Your task to perform on an android device: Check the weather Image 0: 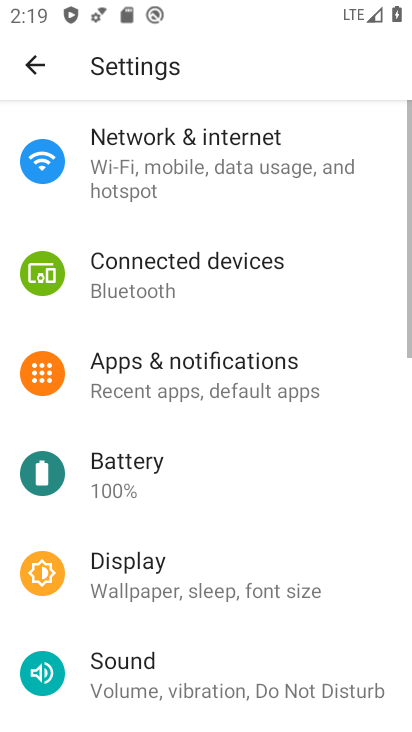
Step 0: press back button
Your task to perform on an android device: Check the weather Image 1: 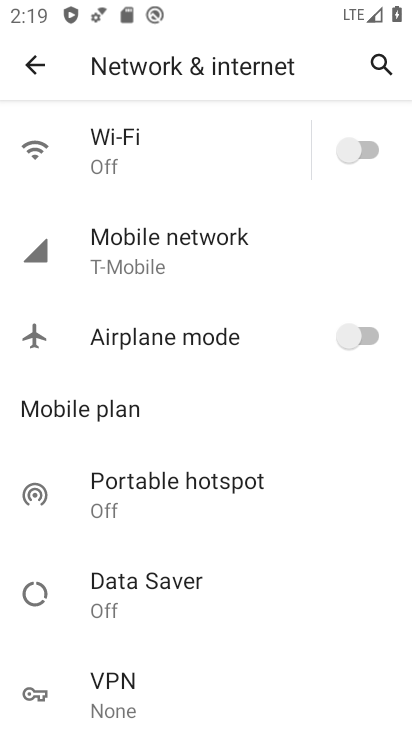
Step 1: press home button
Your task to perform on an android device: Check the weather Image 2: 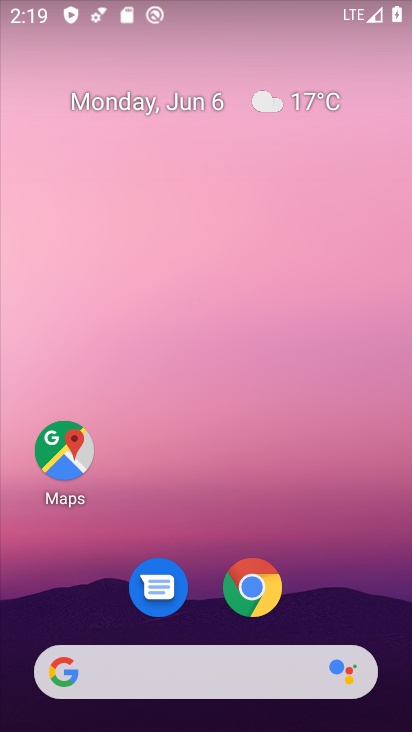
Step 2: drag from (292, 528) to (220, 62)
Your task to perform on an android device: Check the weather Image 3: 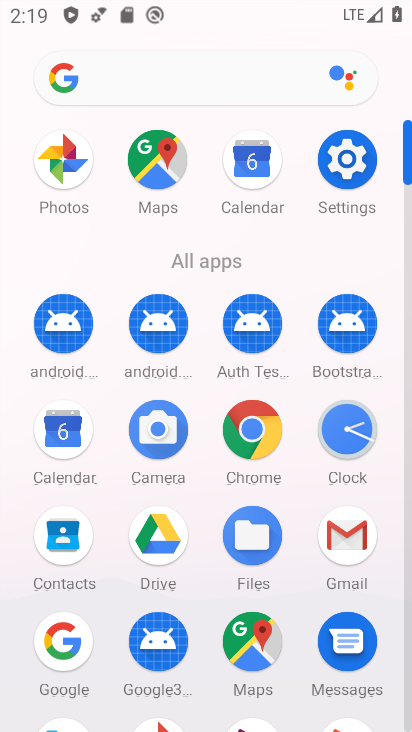
Step 3: click (251, 425)
Your task to perform on an android device: Check the weather Image 4: 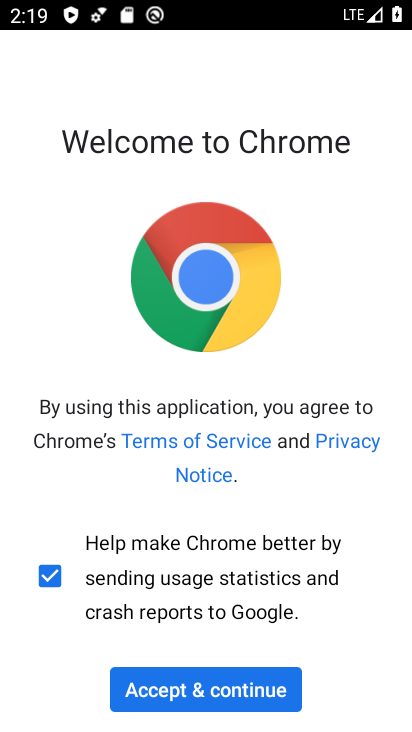
Step 4: click (204, 674)
Your task to perform on an android device: Check the weather Image 5: 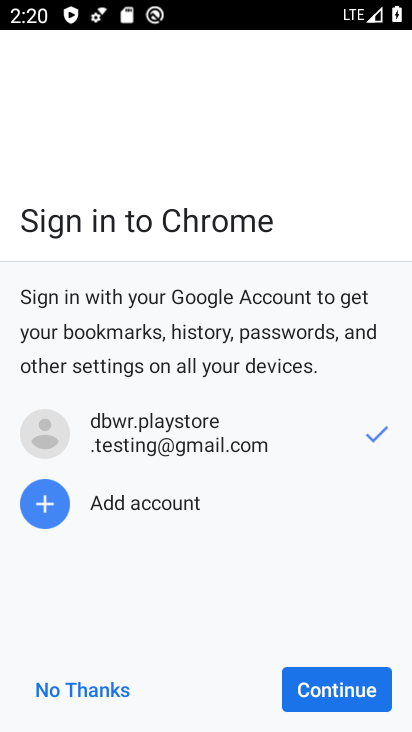
Step 5: click (328, 680)
Your task to perform on an android device: Check the weather Image 6: 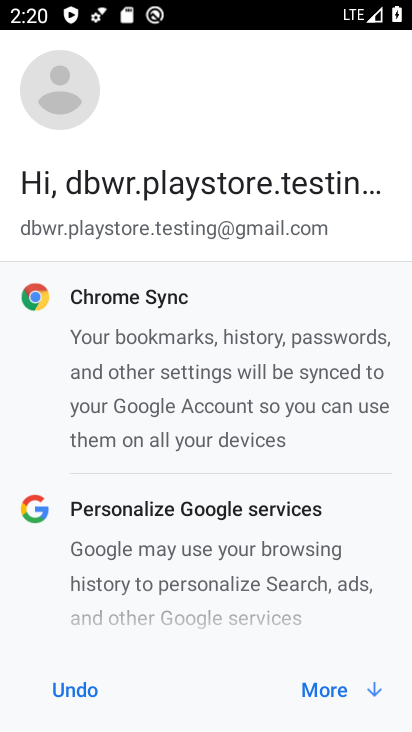
Step 6: click (328, 680)
Your task to perform on an android device: Check the weather Image 7: 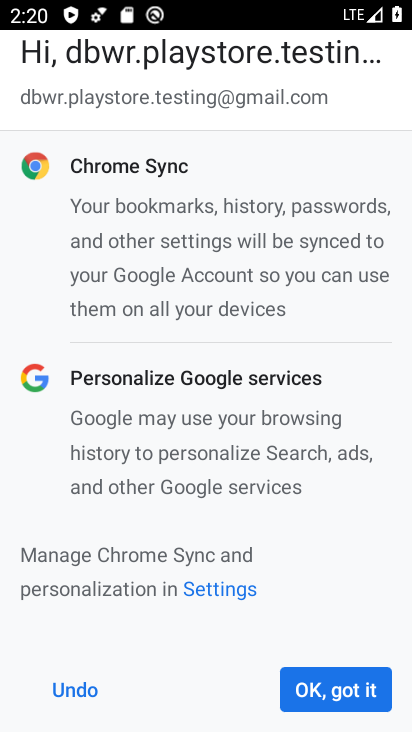
Step 7: click (328, 680)
Your task to perform on an android device: Check the weather Image 8: 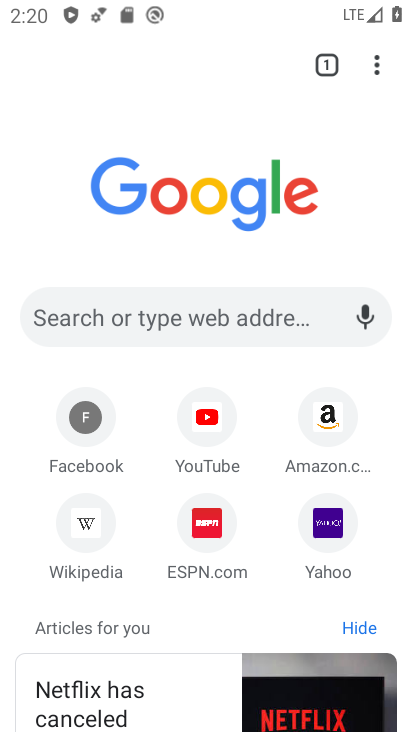
Step 8: click (153, 319)
Your task to perform on an android device: Check the weather Image 9: 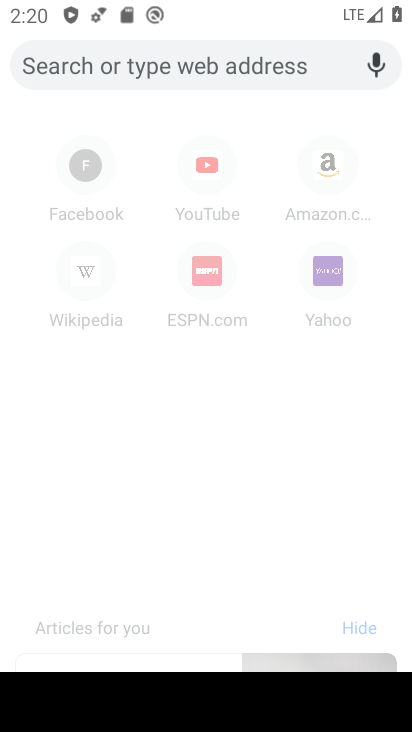
Step 9: type "Check the weather"
Your task to perform on an android device: Check the weather Image 10: 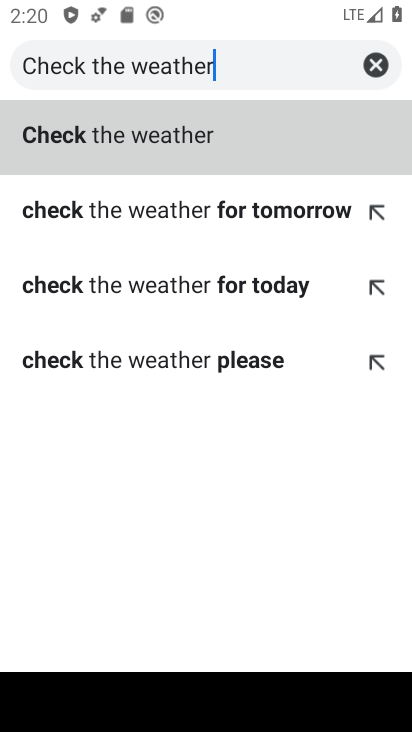
Step 10: type ""
Your task to perform on an android device: Check the weather Image 11: 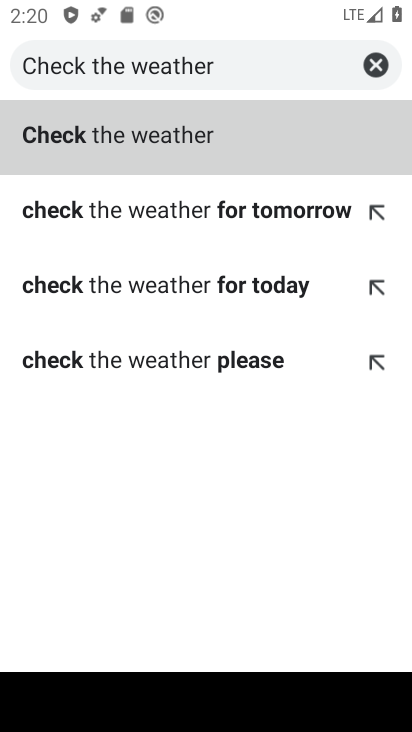
Step 11: click (195, 138)
Your task to perform on an android device: Check the weather Image 12: 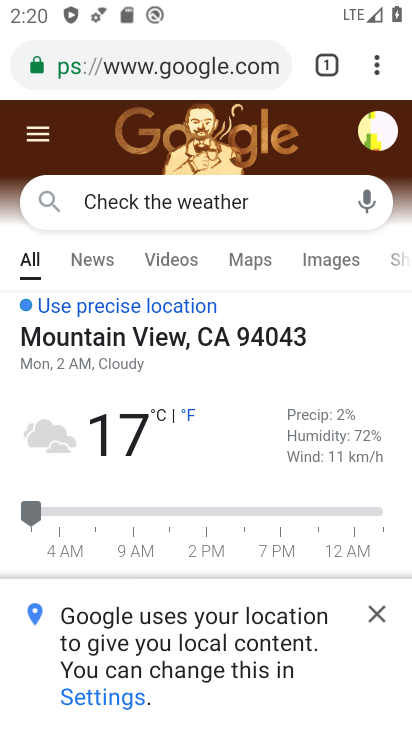
Step 12: task complete